Your task to perform on an android device: change the clock display to digital Image 0: 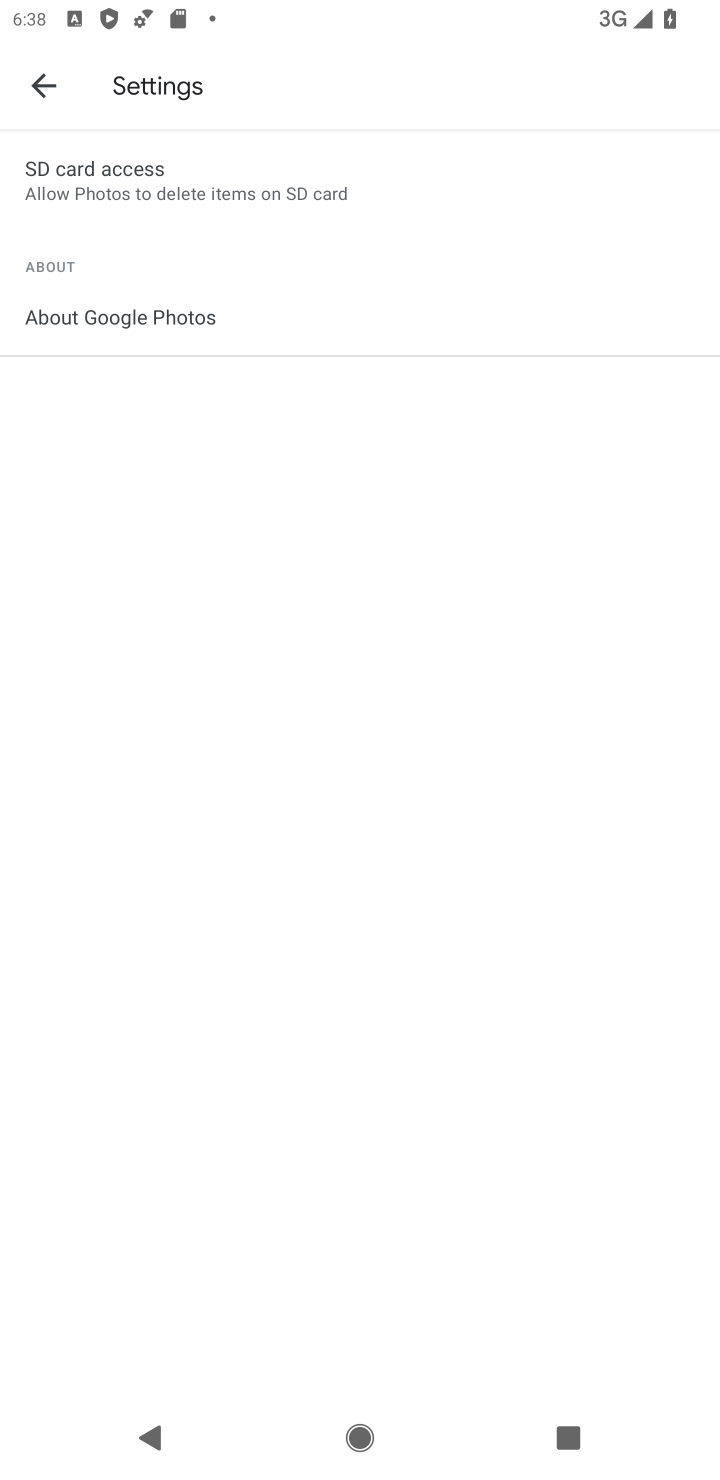
Step 0: press home button
Your task to perform on an android device: change the clock display to digital Image 1: 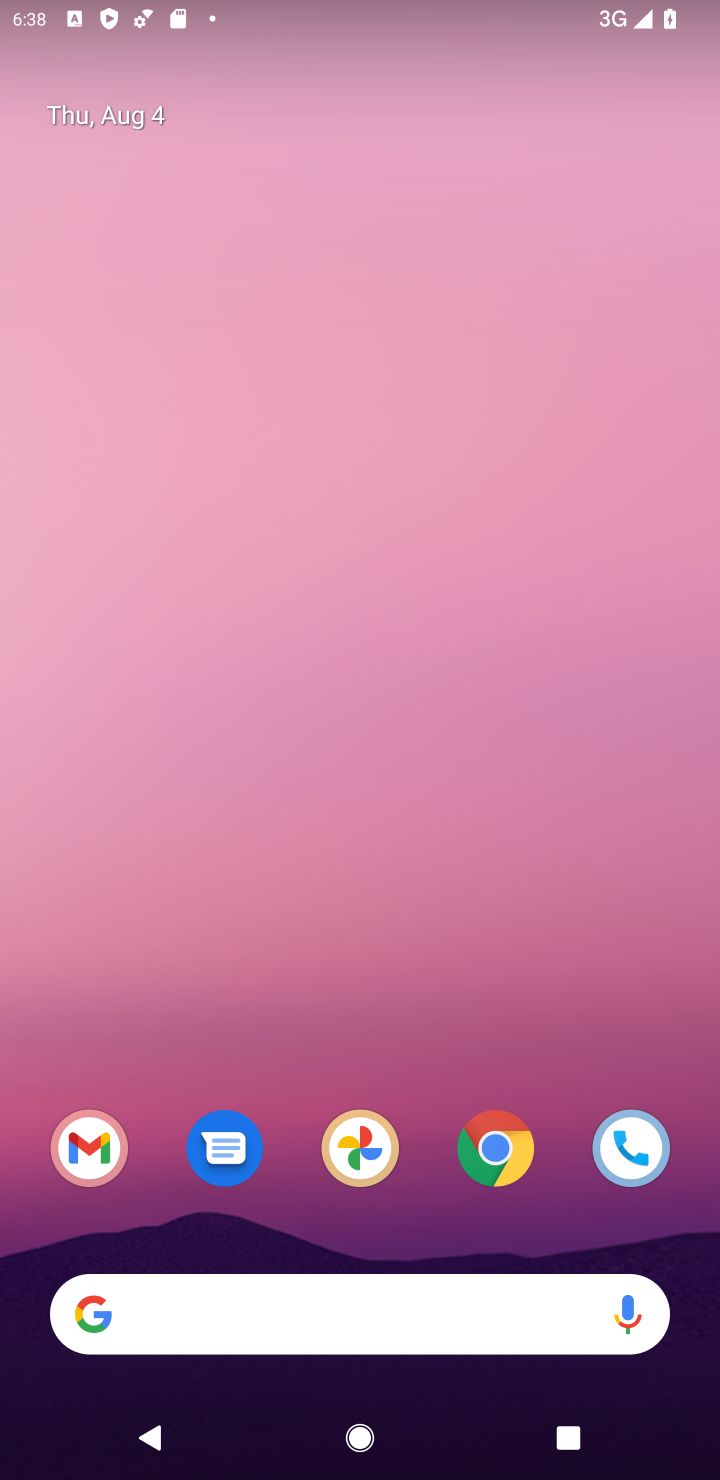
Step 1: drag from (566, 1228) to (594, 272)
Your task to perform on an android device: change the clock display to digital Image 2: 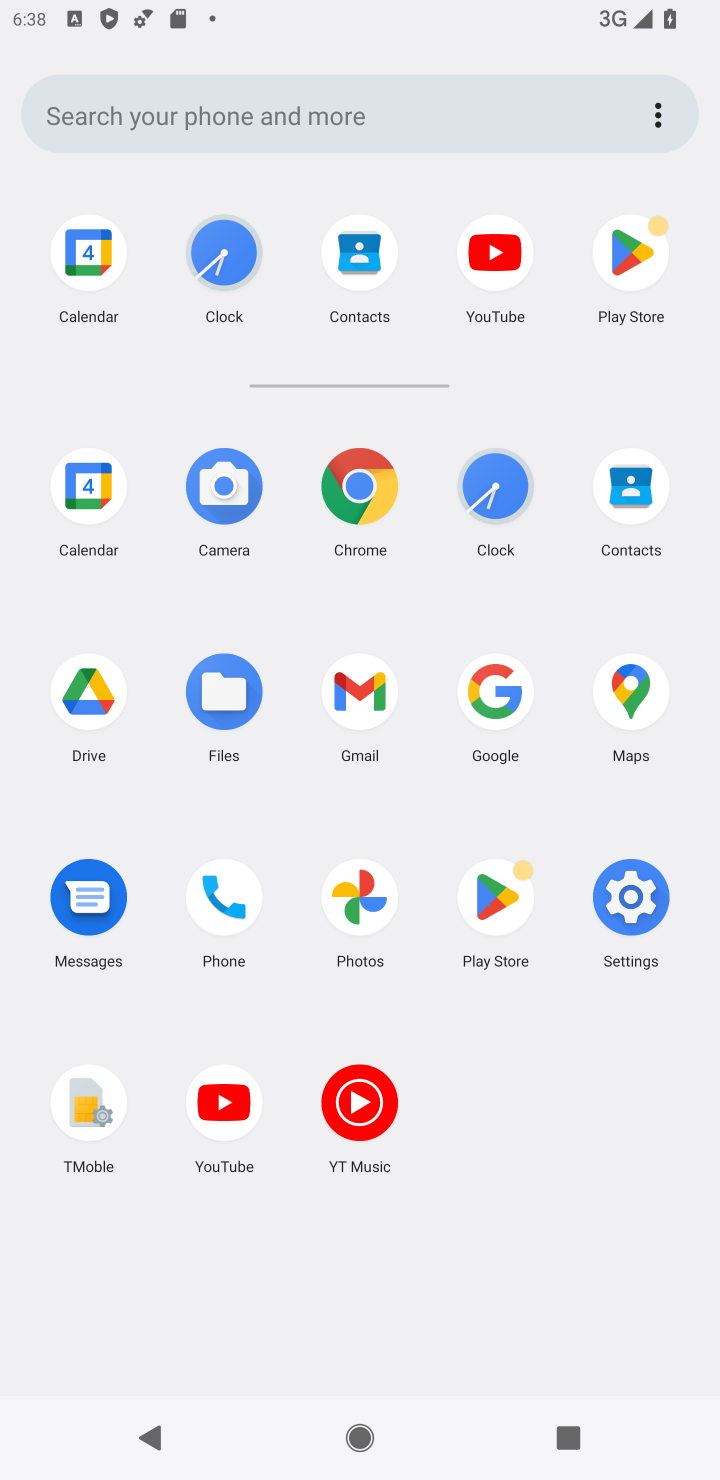
Step 2: click (491, 485)
Your task to perform on an android device: change the clock display to digital Image 3: 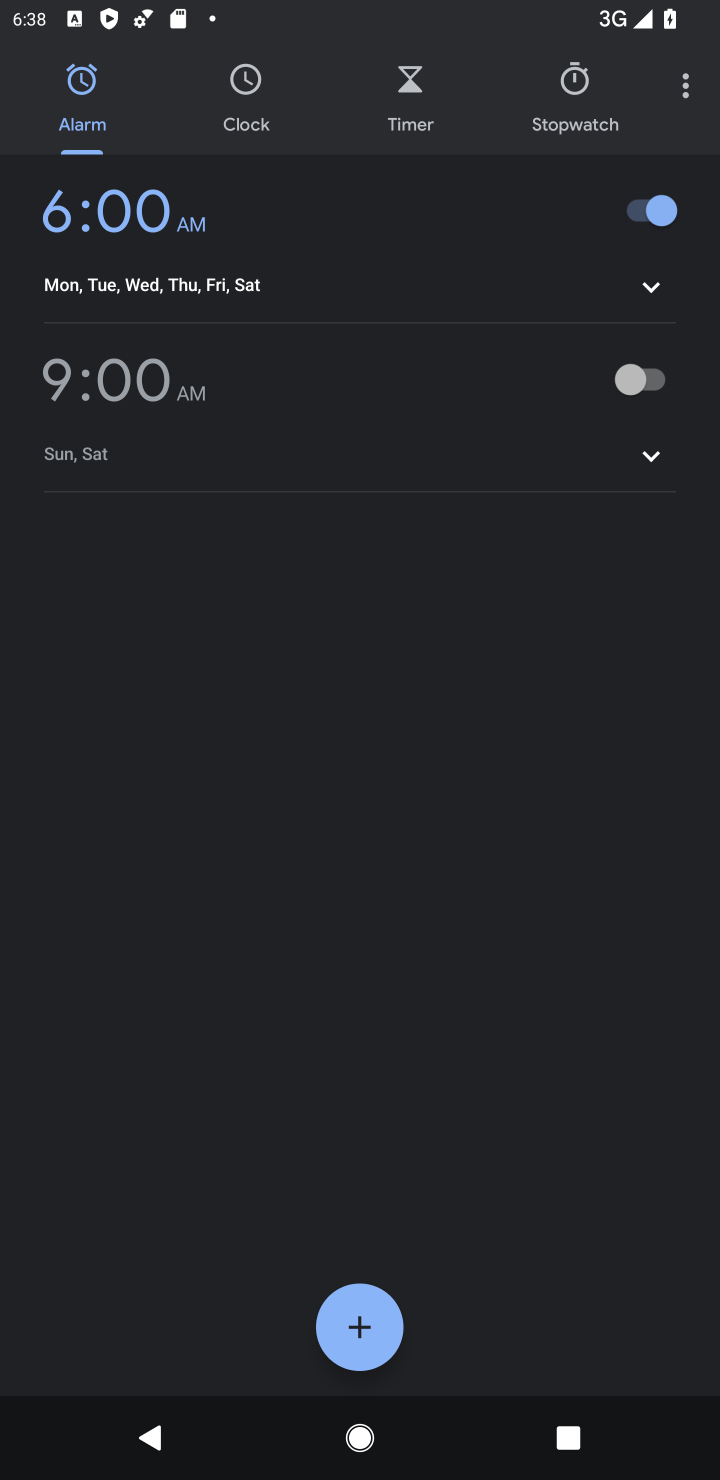
Step 3: click (683, 103)
Your task to perform on an android device: change the clock display to digital Image 4: 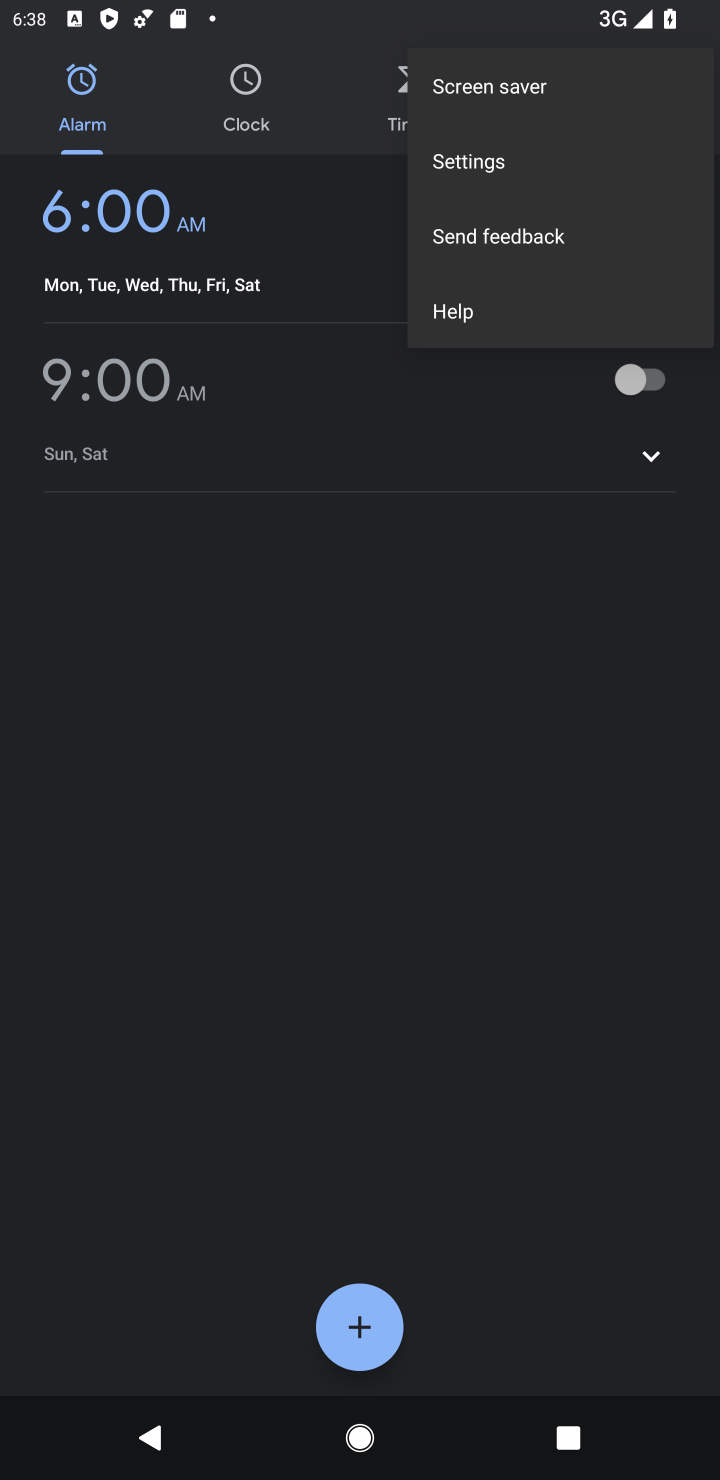
Step 4: click (475, 158)
Your task to perform on an android device: change the clock display to digital Image 5: 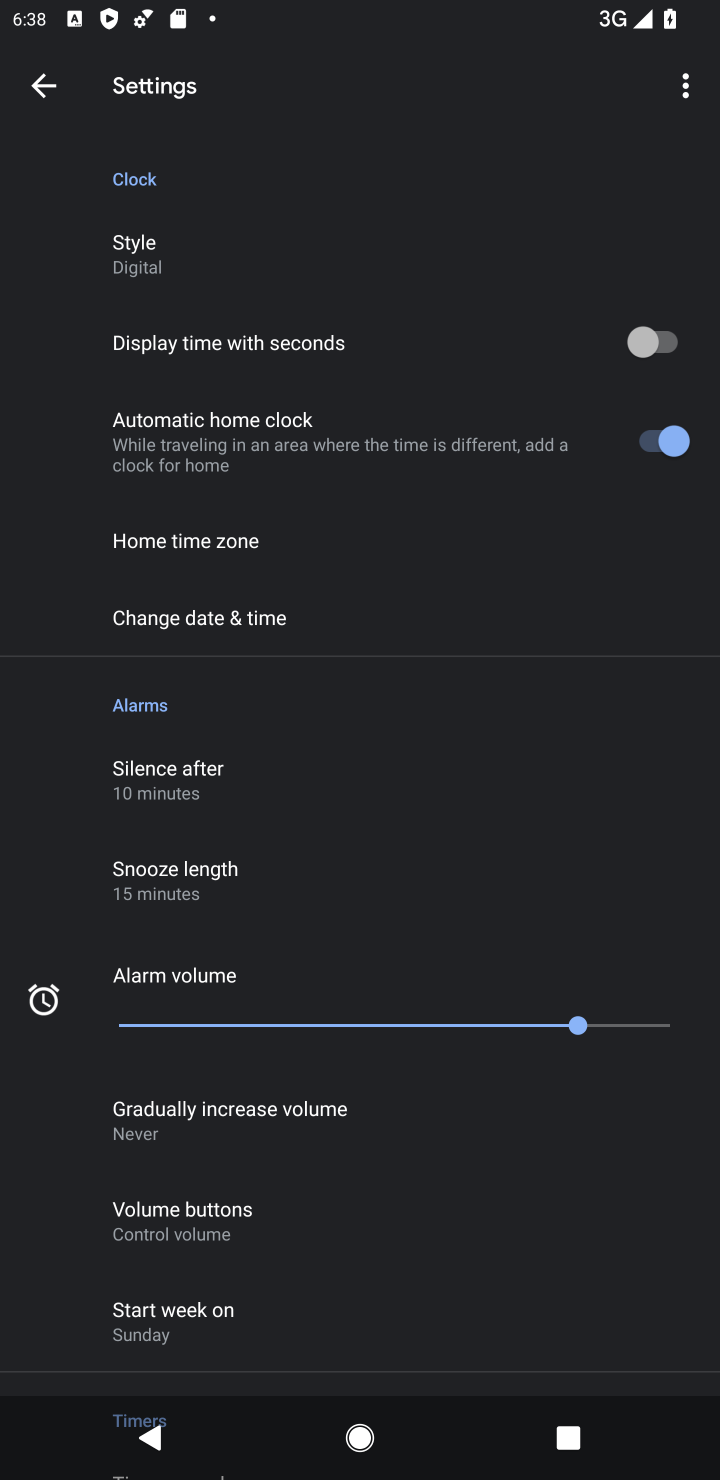
Step 5: task complete